Your task to perform on an android device: toggle improve location accuracy Image 0: 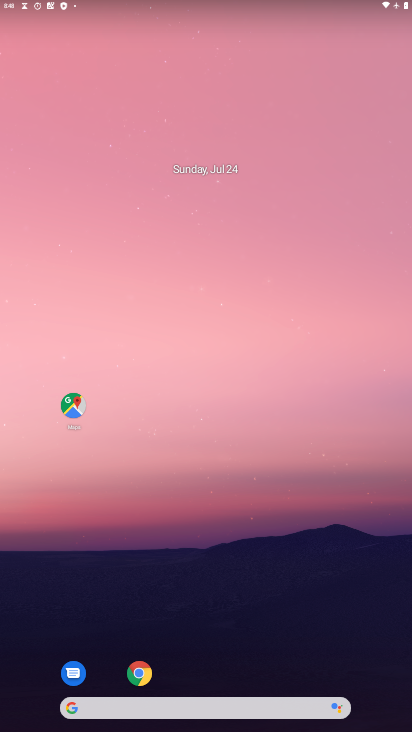
Step 0: drag from (198, 512) to (217, 245)
Your task to perform on an android device: toggle improve location accuracy Image 1: 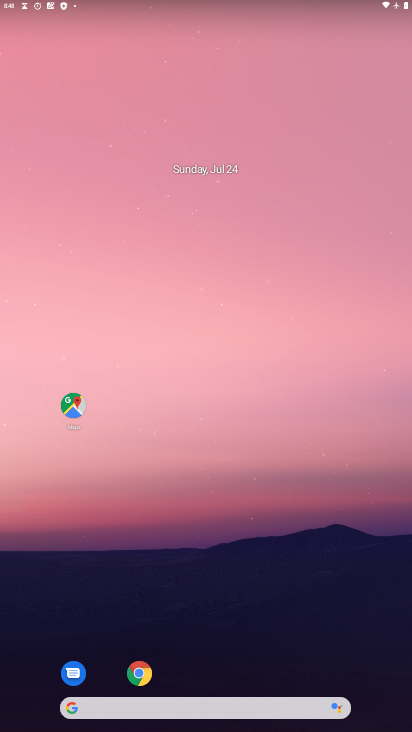
Step 1: drag from (202, 683) to (179, 90)
Your task to perform on an android device: toggle improve location accuracy Image 2: 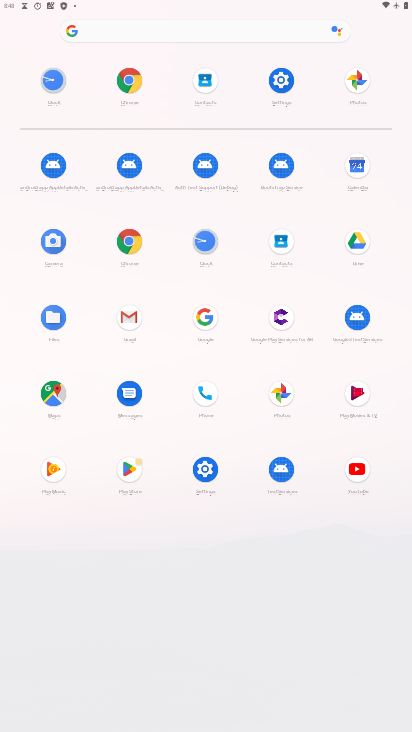
Step 2: drag from (238, 634) to (292, 266)
Your task to perform on an android device: toggle improve location accuracy Image 3: 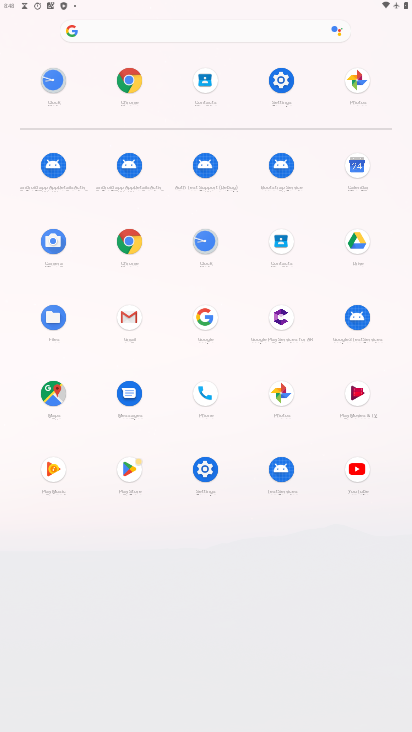
Step 3: click (270, 82)
Your task to perform on an android device: toggle improve location accuracy Image 4: 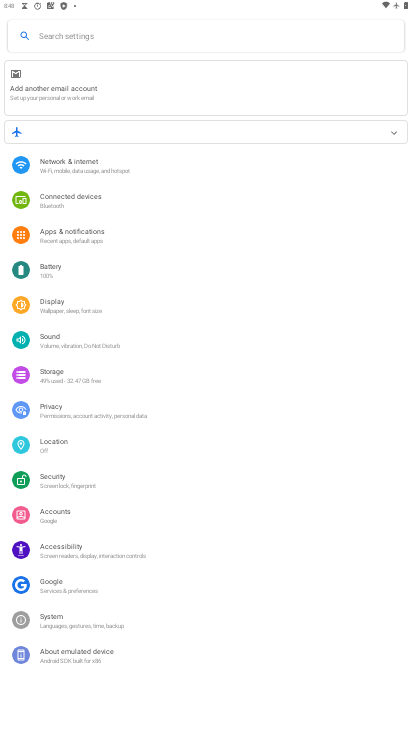
Step 4: drag from (165, 562) to (146, 219)
Your task to perform on an android device: toggle improve location accuracy Image 5: 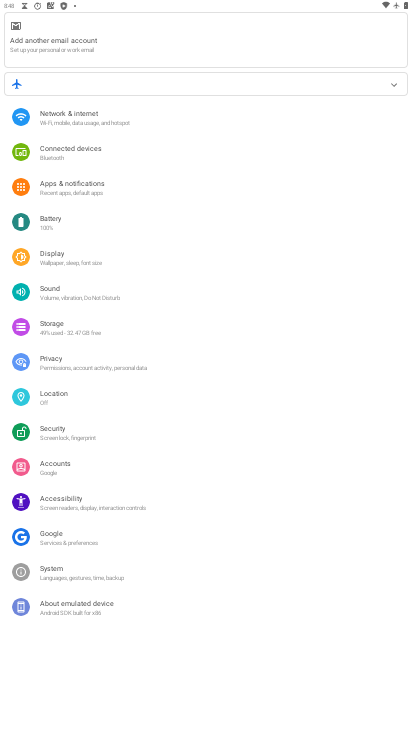
Step 5: drag from (118, 125) to (165, 721)
Your task to perform on an android device: toggle improve location accuracy Image 6: 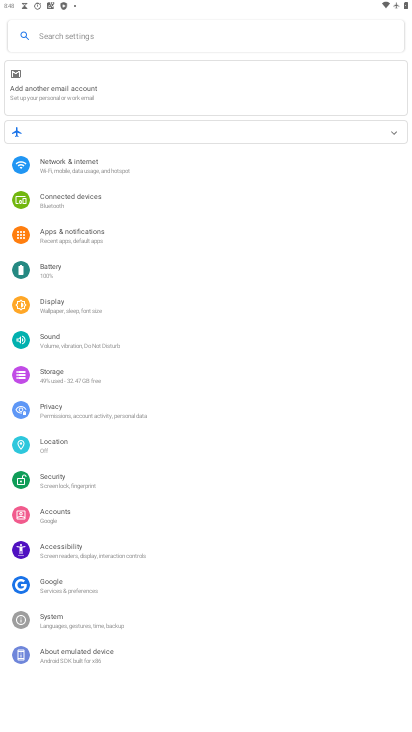
Step 6: drag from (103, 577) to (111, 246)
Your task to perform on an android device: toggle improve location accuracy Image 7: 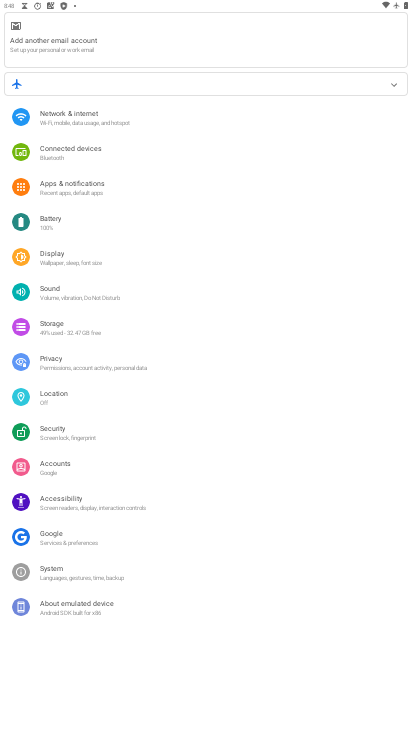
Step 7: drag from (77, 185) to (48, 656)
Your task to perform on an android device: toggle improve location accuracy Image 8: 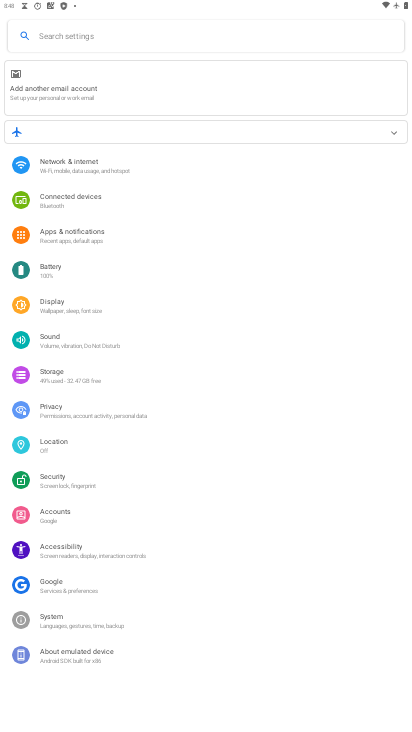
Step 8: drag from (79, 627) to (145, 222)
Your task to perform on an android device: toggle improve location accuracy Image 9: 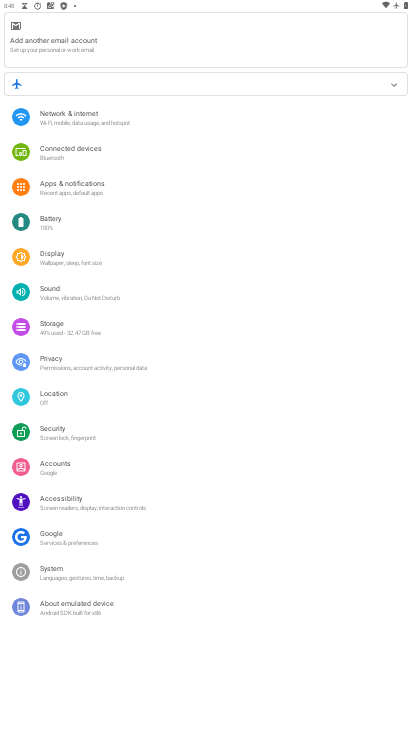
Step 9: drag from (60, 263) to (56, 683)
Your task to perform on an android device: toggle improve location accuracy Image 10: 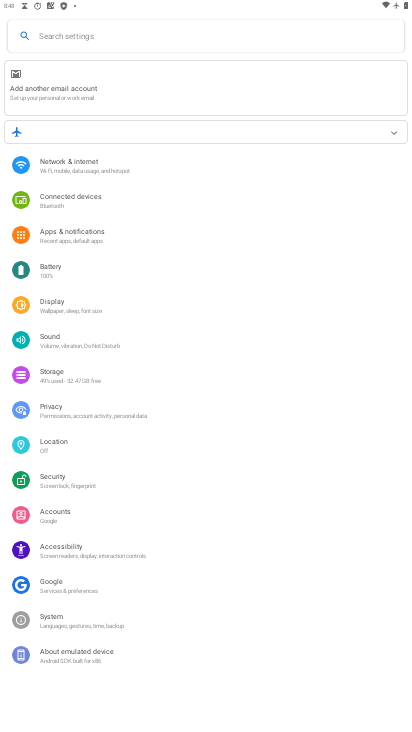
Step 10: drag from (69, 401) to (137, 60)
Your task to perform on an android device: toggle improve location accuracy Image 11: 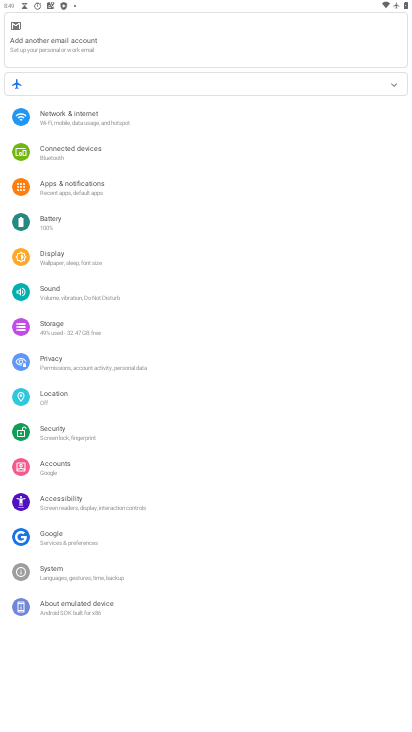
Step 11: click (72, 399)
Your task to perform on an android device: toggle improve location accuracy Image 12: 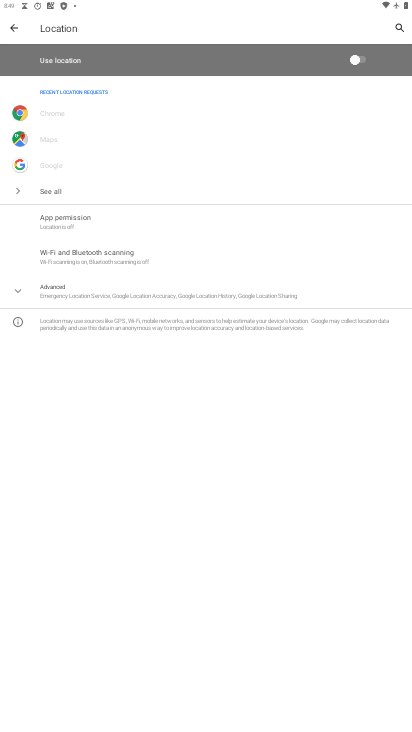
Step 12: drag from (182, 585) to (236, 160)
Your task to perform on an android device: toggle improve location accuracy Image 13: 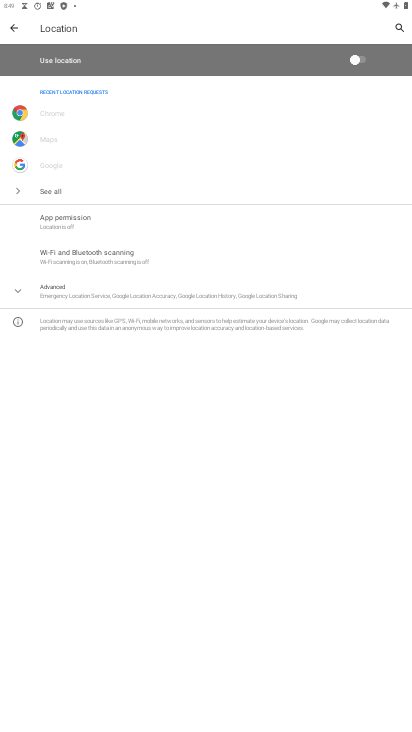
Step 13: click (79, 298)
Your task to perform on an android device: toggle improve location accuracy Image 14: 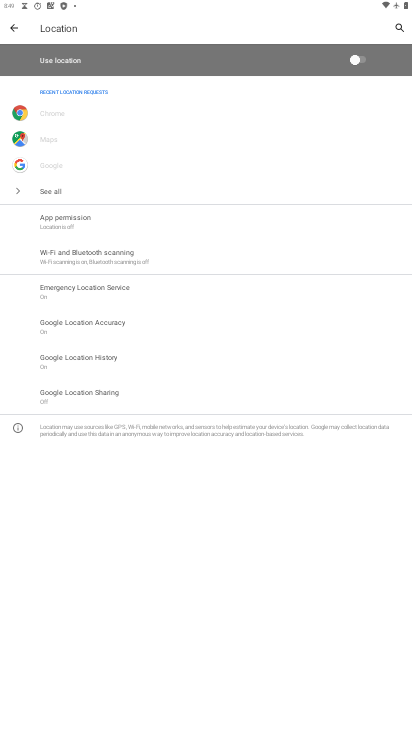
Step 14: click (122, 342)
Your task to perform on an android device: toggle improve location accuracy Image 15: 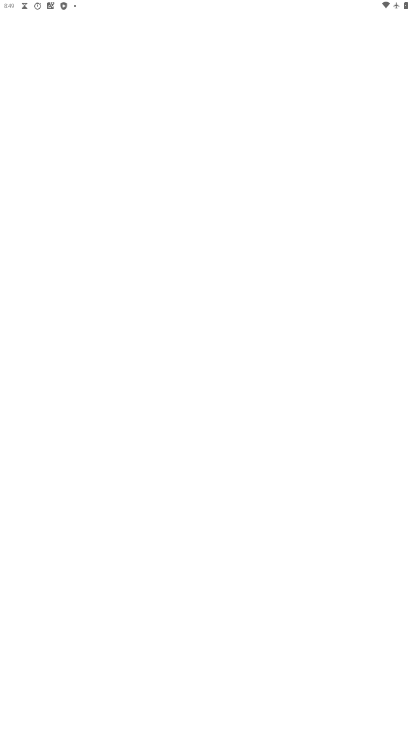
Step 15: task complete